Your task to perform on an android device: clear all cookies in the chrome app Image 0: 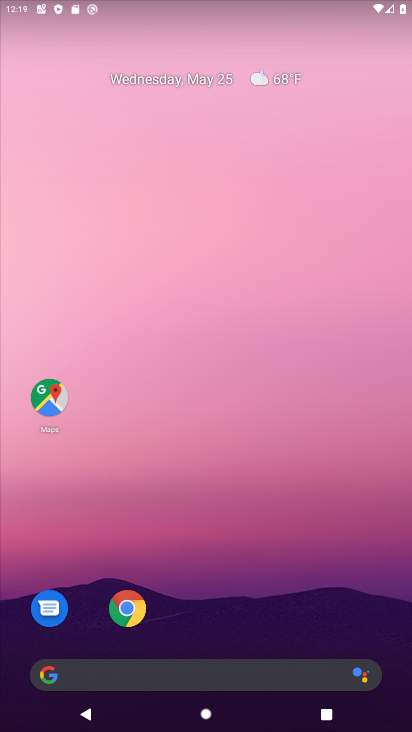
Step 0: click (131, 606)
Your task to perform on an android device: clear all cookies in the chrome app Image 1: 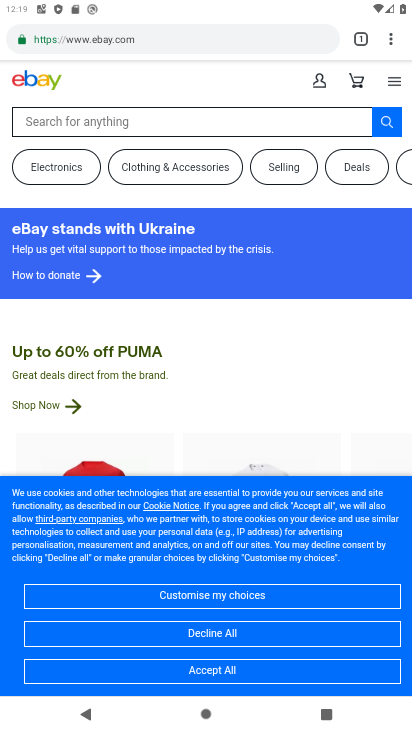
Step 1: click (393, 30)
Your task to perform on an android device: clear all cookies in the chrome app Image 2: 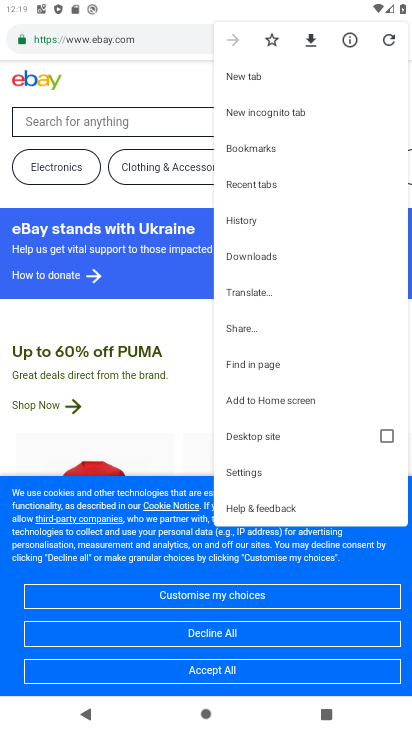
Step 2: click (268, 469)
Your task to perform on an android device: clear all cookies in the chrome app Image 3: 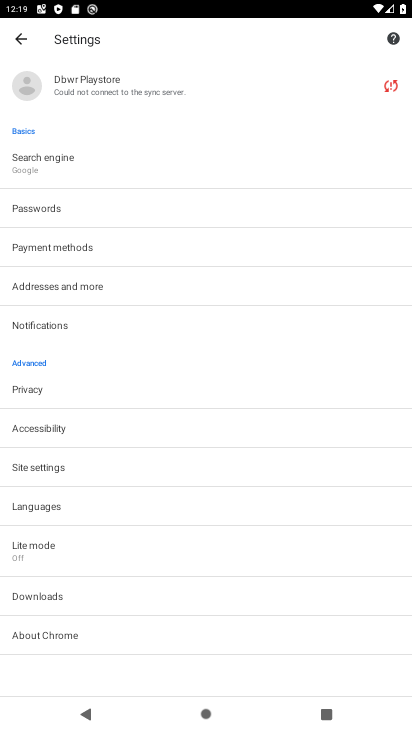
Step 3: click (69, 392)
Your task to perform on an android device: clear all cookies in the chrome app Image 4: 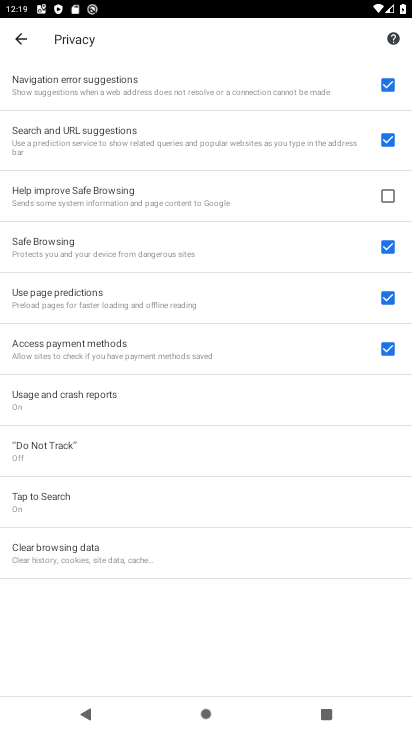
Step 4: click (146, 549)
Your task to perform on an android device: clear all cookies in the chrome app Image 5: 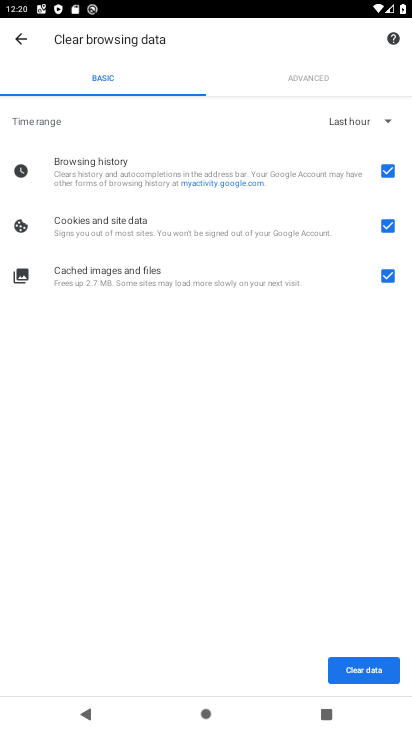
Step 5: click (396, 272)
Your task to perform on an android device: clear all cookies in the chrome app Image 6: 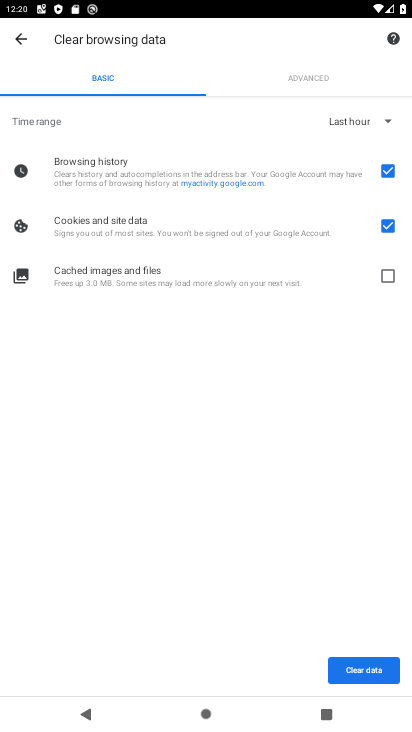
Step 6: click (388, 163)
Your task to perform on an android device: clear all cookies in the chrome app Image 7: 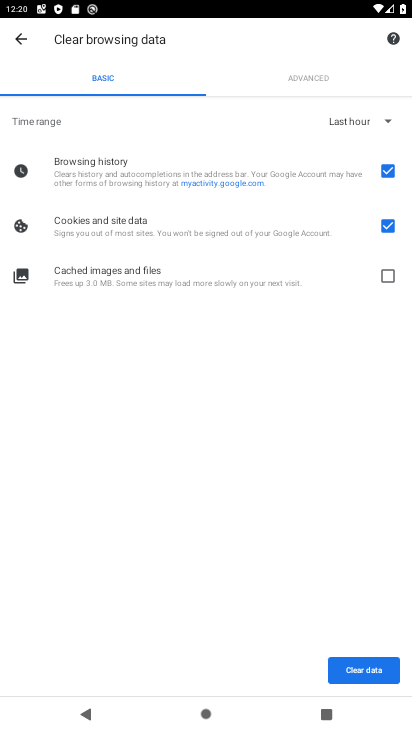
Step 7: click (382, 117)
Your task to perform on an android device: clear all cookies in the chrome app Image 8: 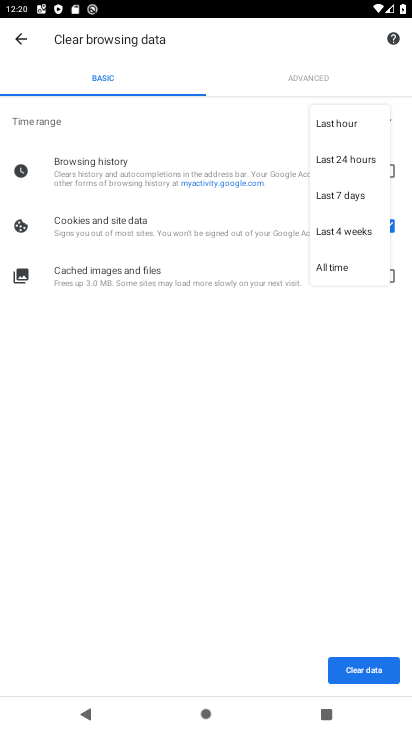
Step 8: click (331, 269)
Your task to perform on an android device: clear all cookies in the chrome app Image 9: 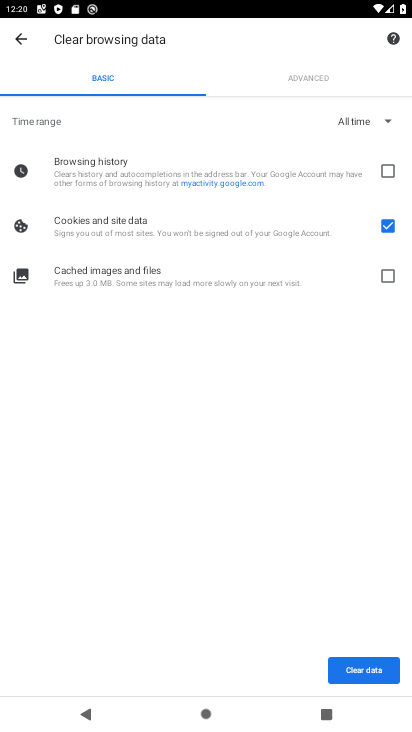
Step 9: click (374, 669)
Your task to perform on an android device: clear all cookies in the chrome app Image 10: 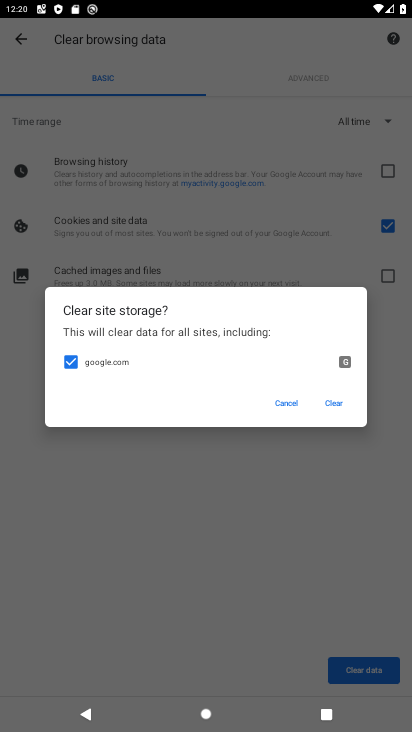
Step 10: click (331, 400)
Your task to perform on an android device: clear all cookies in the chrome app Image 11: 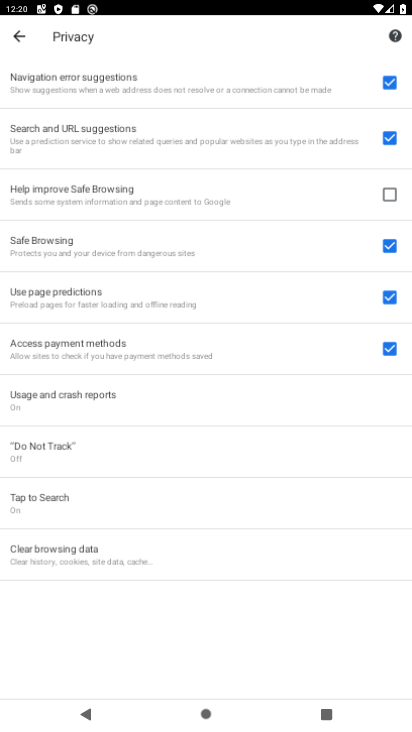
Step 11: task complete